Your task to perform on an android device: Go to Yahoo.com Image 0: 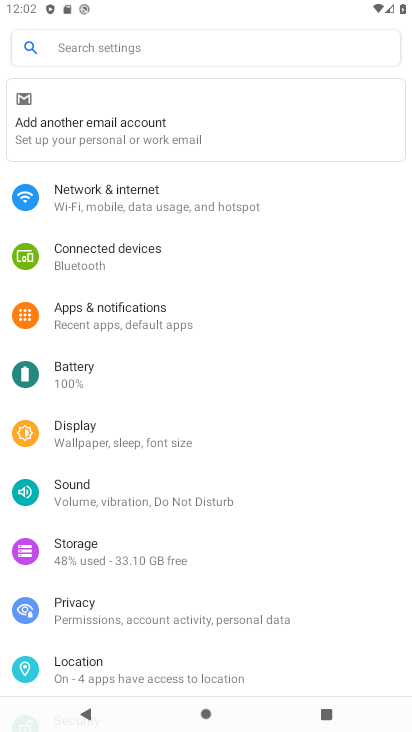
Step 0: press home button
Your task to perform on an android device: Go to Yahoo.com Image 1: 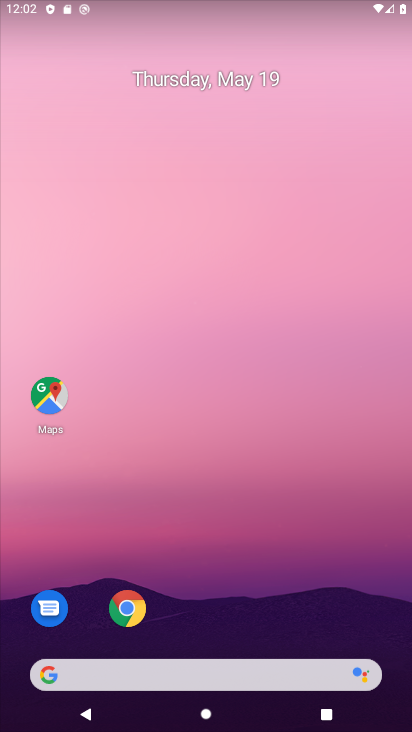
Step 1: drag from (201, 692) to (358, 46)
Your task to perform on an android device: Go to Yahoo.com Image 2: 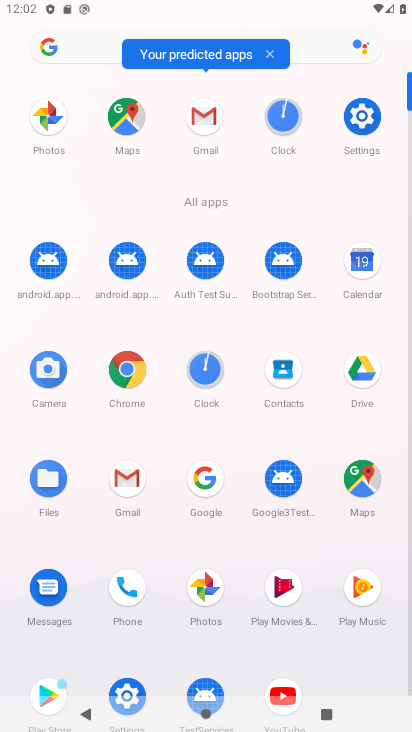
Step 2: click (122, 355)
Your task to perform on an android device: Go to Yahoo.com Image 3: 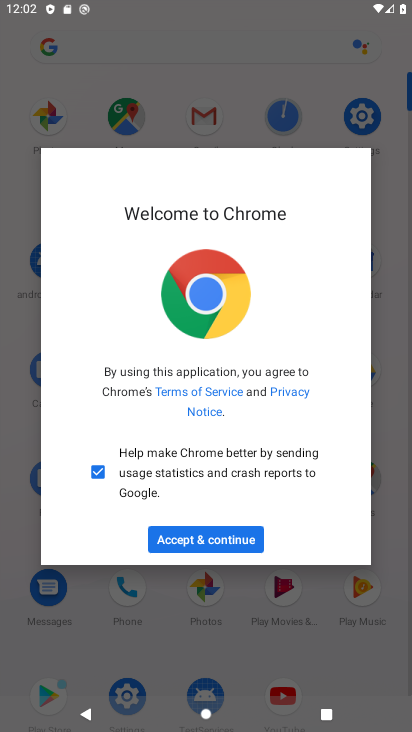
Step 3: click (205, 542)
Your task to perform on an android device: Go to Yahoo.com Image 4: 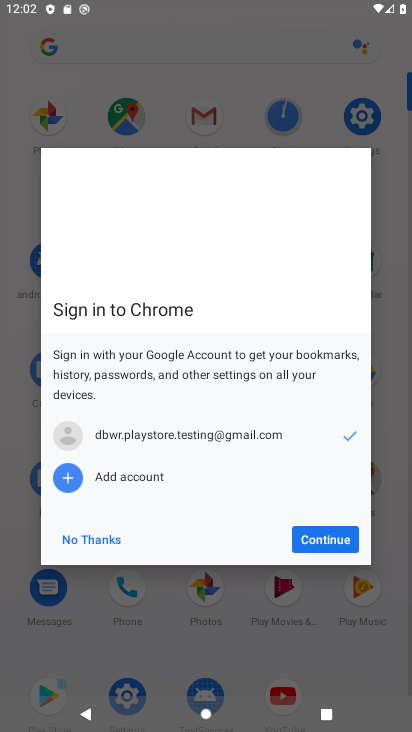
Step 4: click (318, 543)
Your task to perform on an android device: Go to Yahoo.com Image 5: 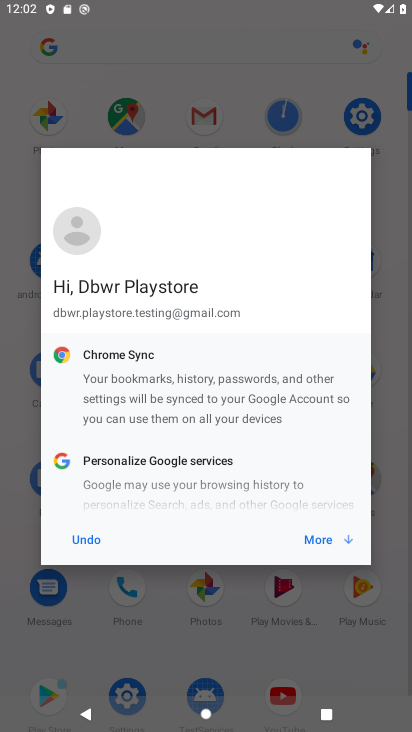
Step 5: click (332, 538)
Your task to perform on an android device: Go to Yahoo.com Image 6: 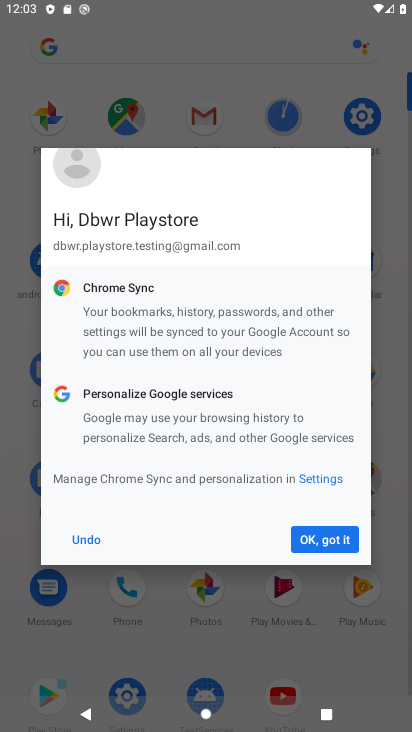
Step 6: click (327, 541)
Your task to perform on an android device: Go to Yahoo.com Image 7: 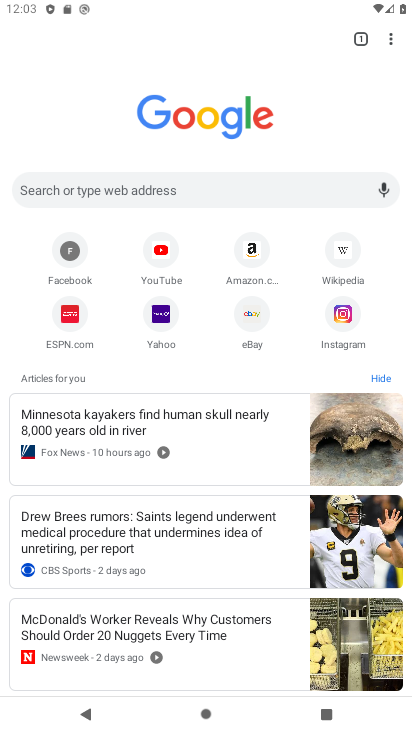
Step 7: click (172, 314)
Your task to perform on an android device: Go to Yahoo.com Image 8: 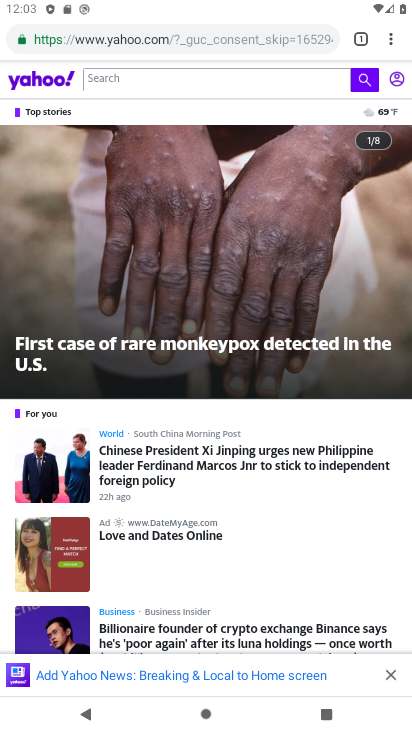
Step 8: task complete